Your task to perform on an android device: Open accessibility settings Image 0: 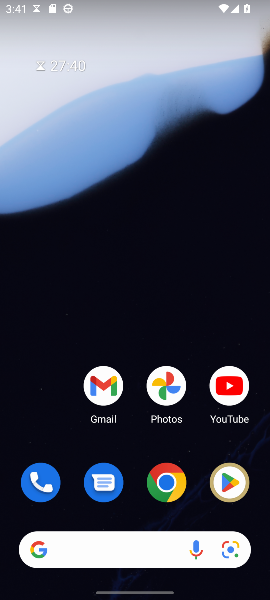
Step 0: press home button
Your task to perform on an android device: Open accessibility settings Image 1: 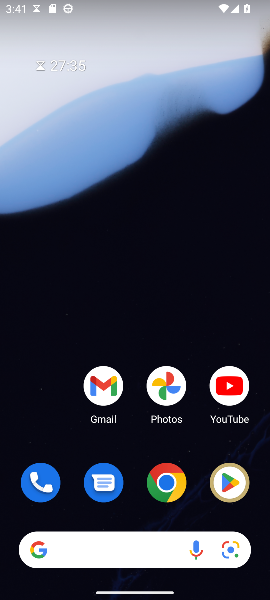
Step 1: drag from (136, 446) to (159, 31)
Your task to perform on an android device: Open accessibility settings Image 2: 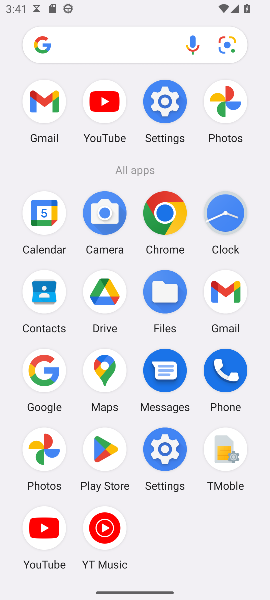
Step 2: click (162, 96)
Your task to perform on an android device: Open accessibility settings Image 3: 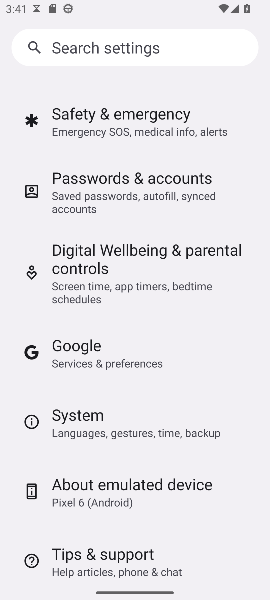
Step 3: drag from (96, 151) to (116, 569)
Your task to perform on an android device: Open accessibility settings Image 4: 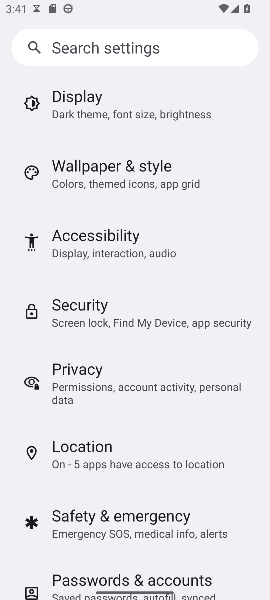
Step 4: click (40, 237)
Your task to perform on an android device: Open accessibility settings Image 5: 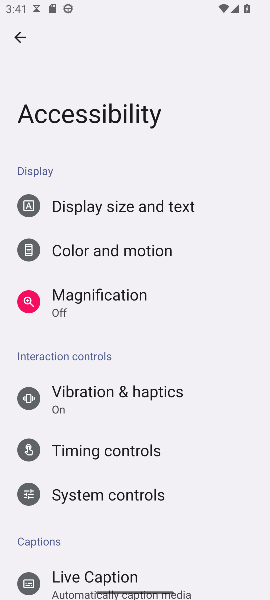
Step 5: task complete